Your task to perform on an android device: Clear all items from cart on newegg.com. Search for "asus zenbook" on newegg.com, select the first entry, add it to the cart, then select checkout. Image 0: 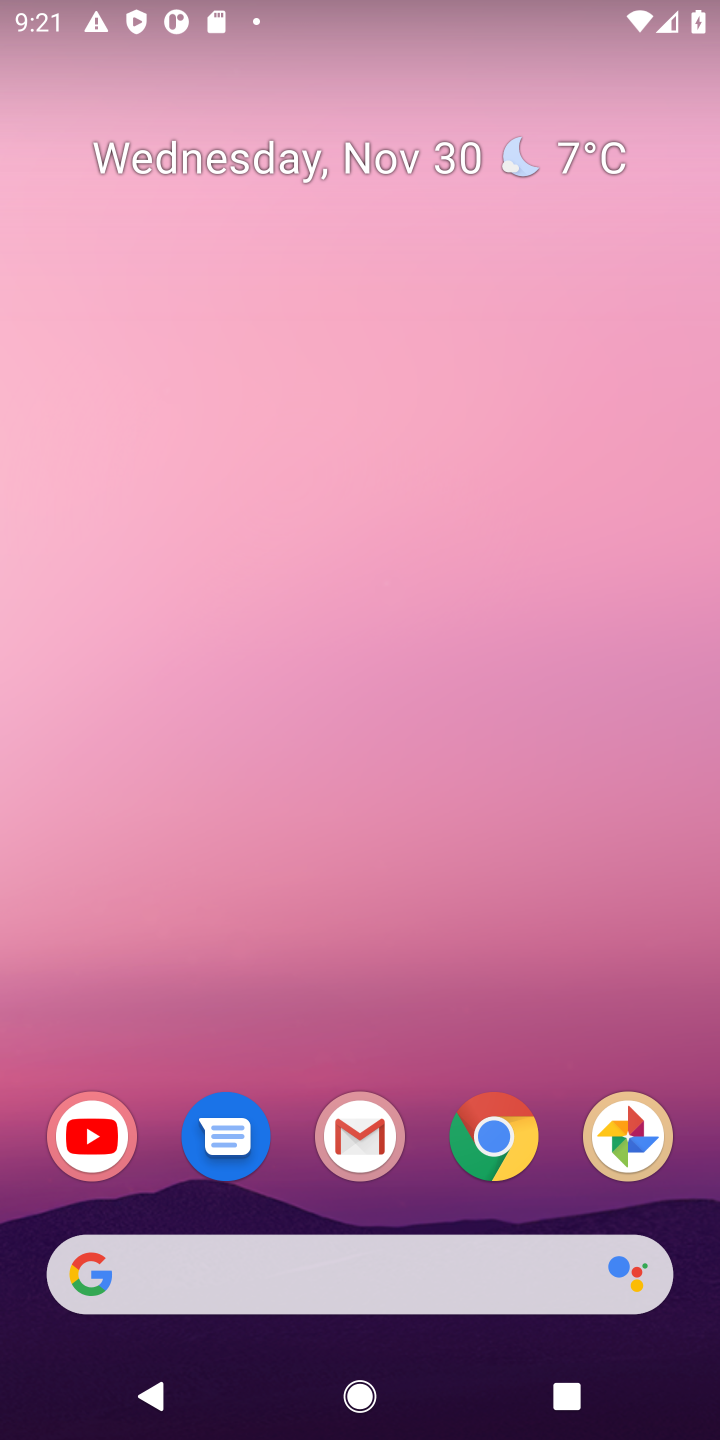
Step 0: click (507, 1141)
Your task to perform on an android device: Clear all items from cart on newegg.com. Search for "asus zenbook" on newegg.com, select the first entry, add it to the cart, then select checkout. Image 1: 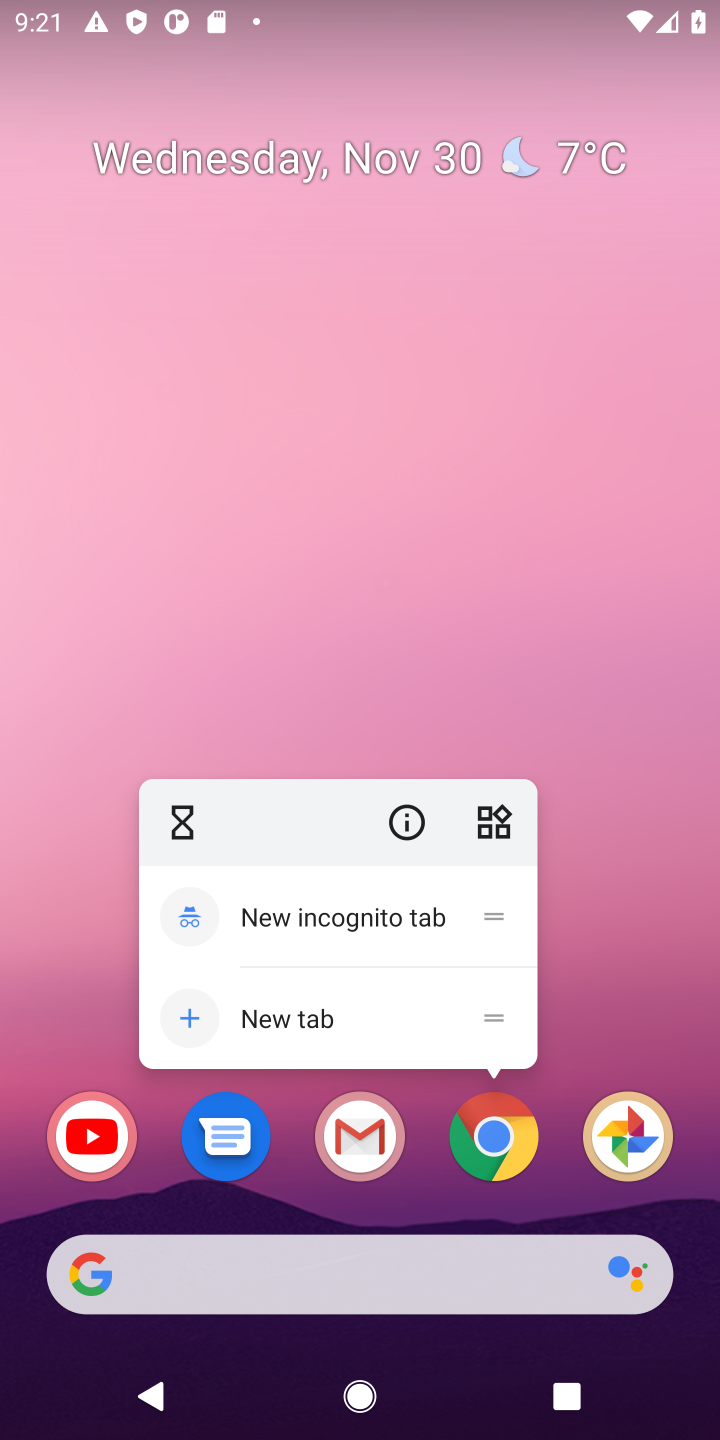
Step 1: click (693, 1008)
Your task to perform on an android device: Clear all items from cart on newegg.com. Search for "asus zenbook" on newegg.com, select the first entry, add it to the cart, then select checkout. Image 2: 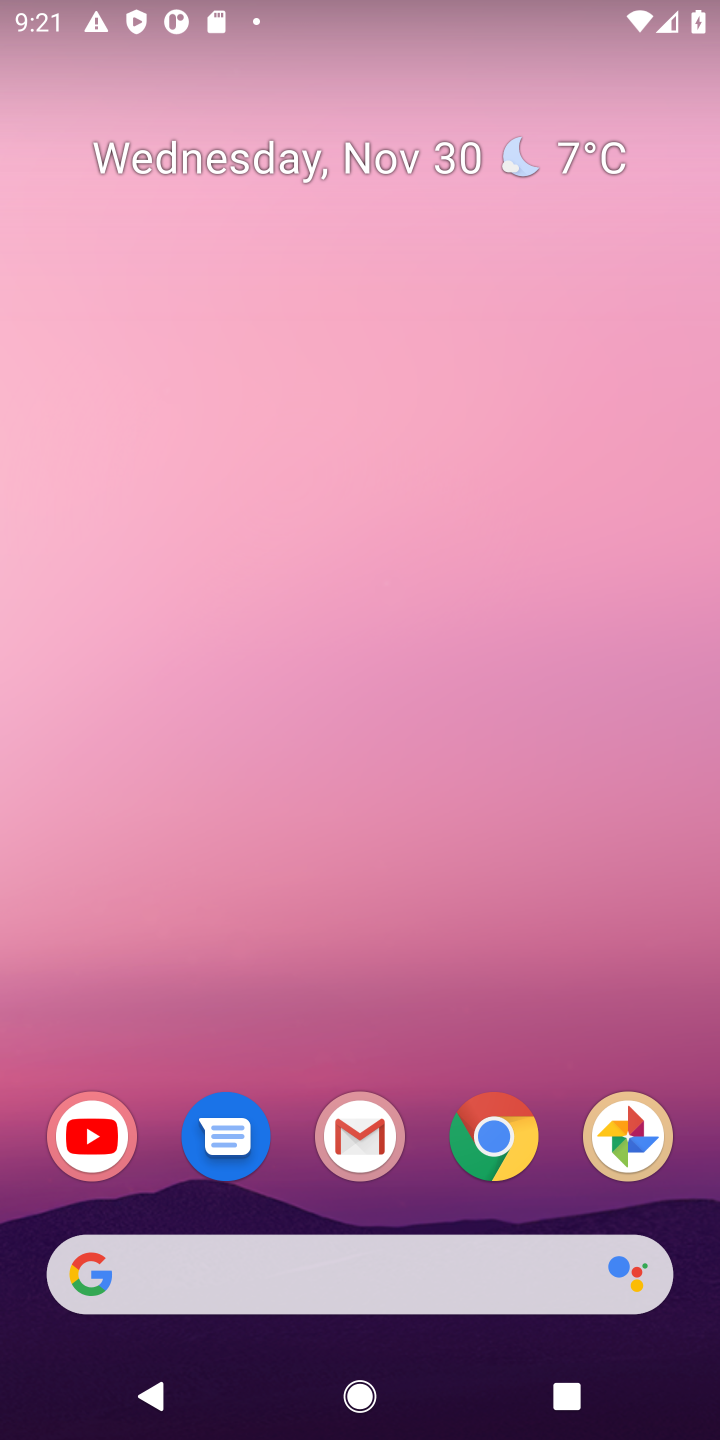
Step 2: click (507, 1126)
Your task to perform on an android device: Clear all items from cart on newegg.com. Search for "asus zenbook" on newegg.com, select the first entry, add it to the cart, then select checkout. Image 3: 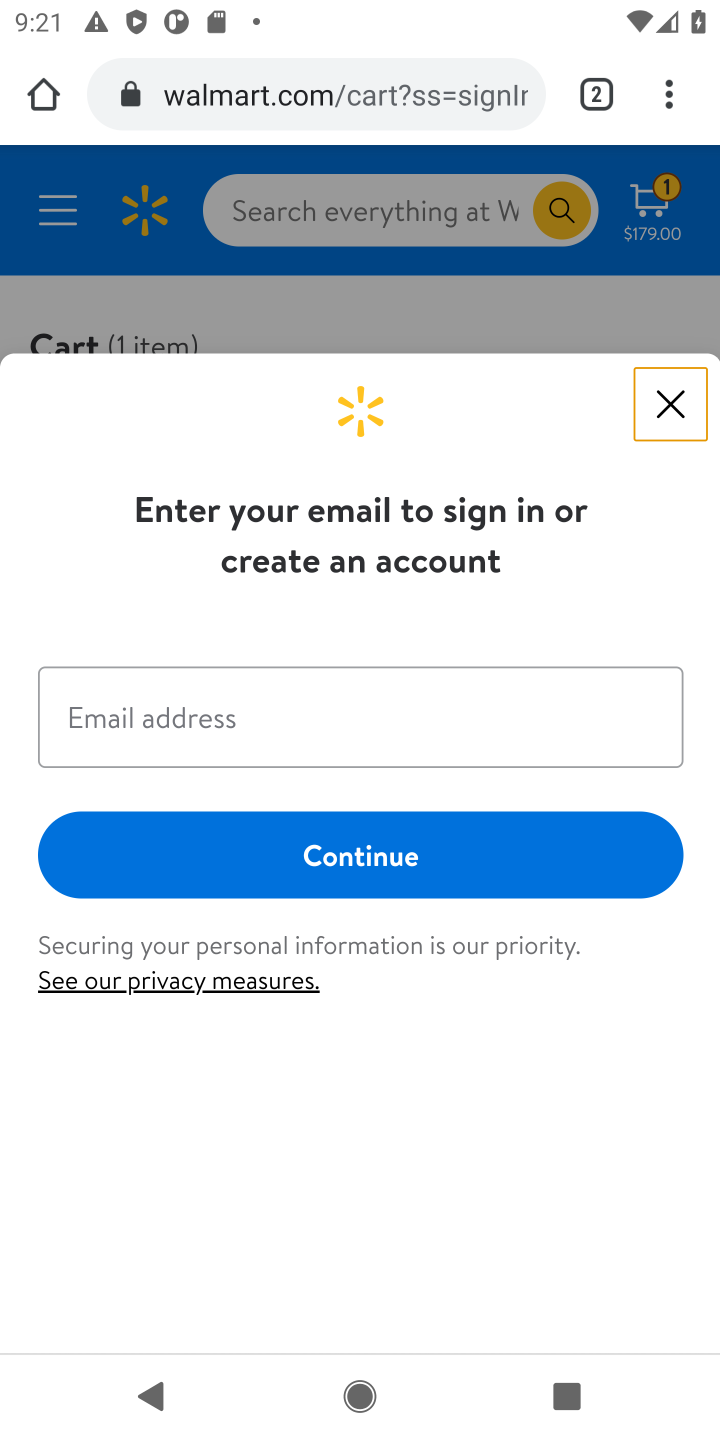
Step 3: click (323, 104)
Your task to perform on an android device: Clear all items from cart on newegg.com. Search for "asus zenbook" on newegg.com, select the first entry, add it to the cart, then select checkout. Image 4: 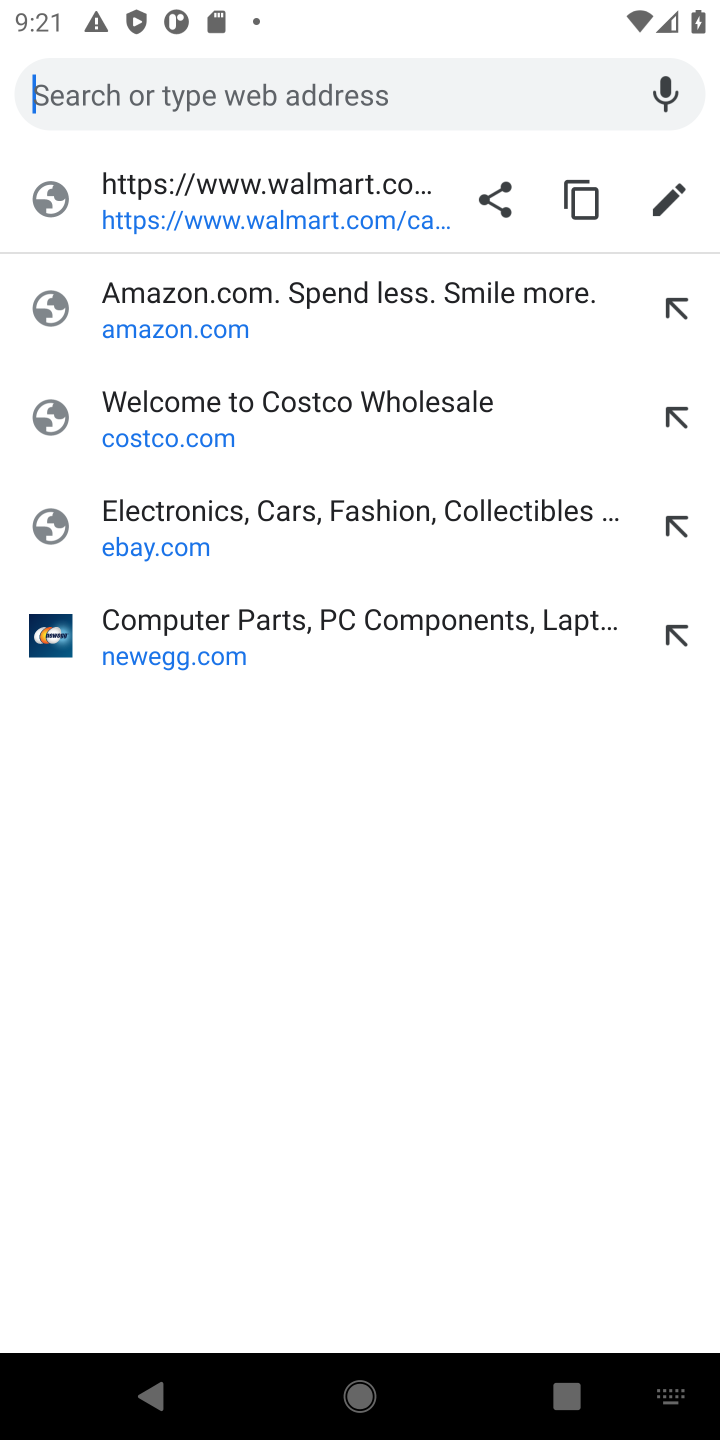
Step 4: click (141, 646)
Your task to perform on an android device: Clear all items from cart on newegg.com. Search for "asus zenbook" on newegg.com, select the first entry, add it to the cart, then select checkout. Image 5: 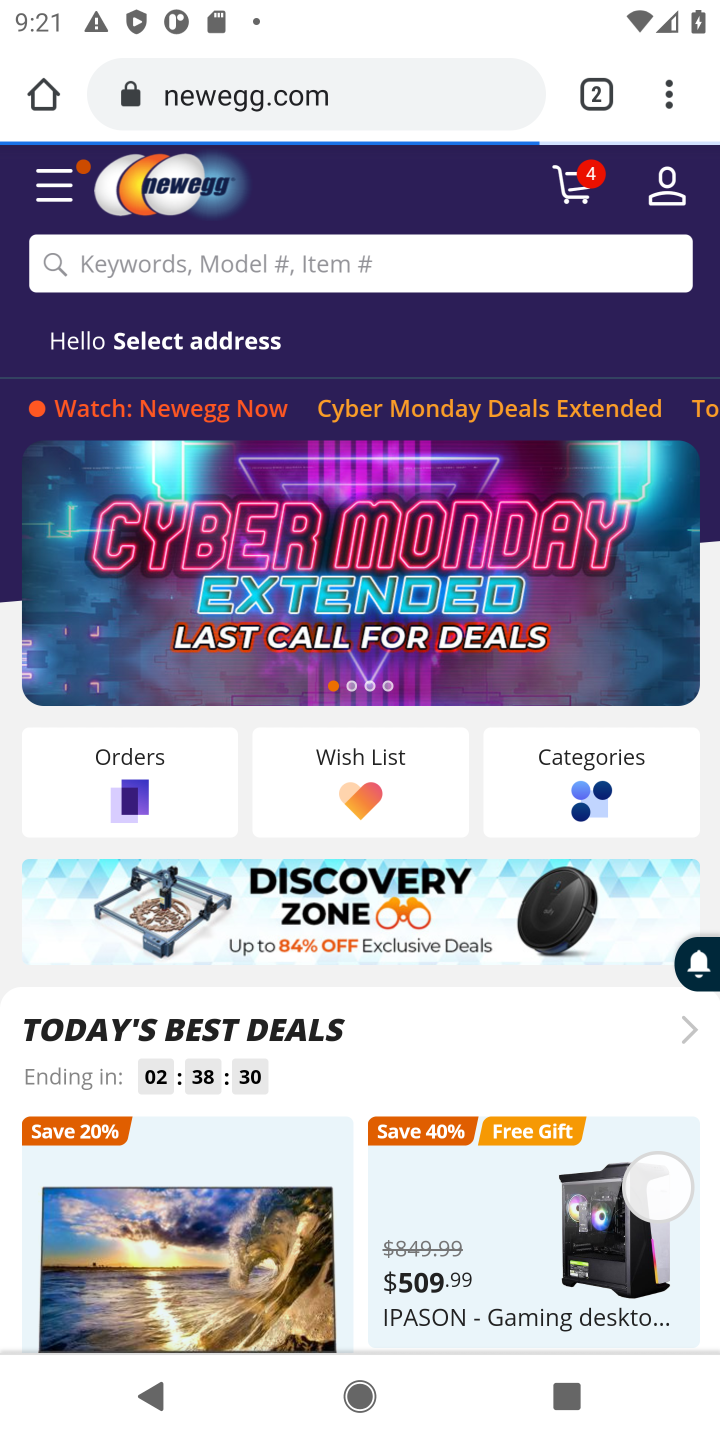
Step 5: click (580, 198)
Your task to perform on an android device: Clear all items from cart on newegg.com. Search for "asus zenbook" on newegg.com, select the first entry, add it to the cart, then select checkout. Image 6: 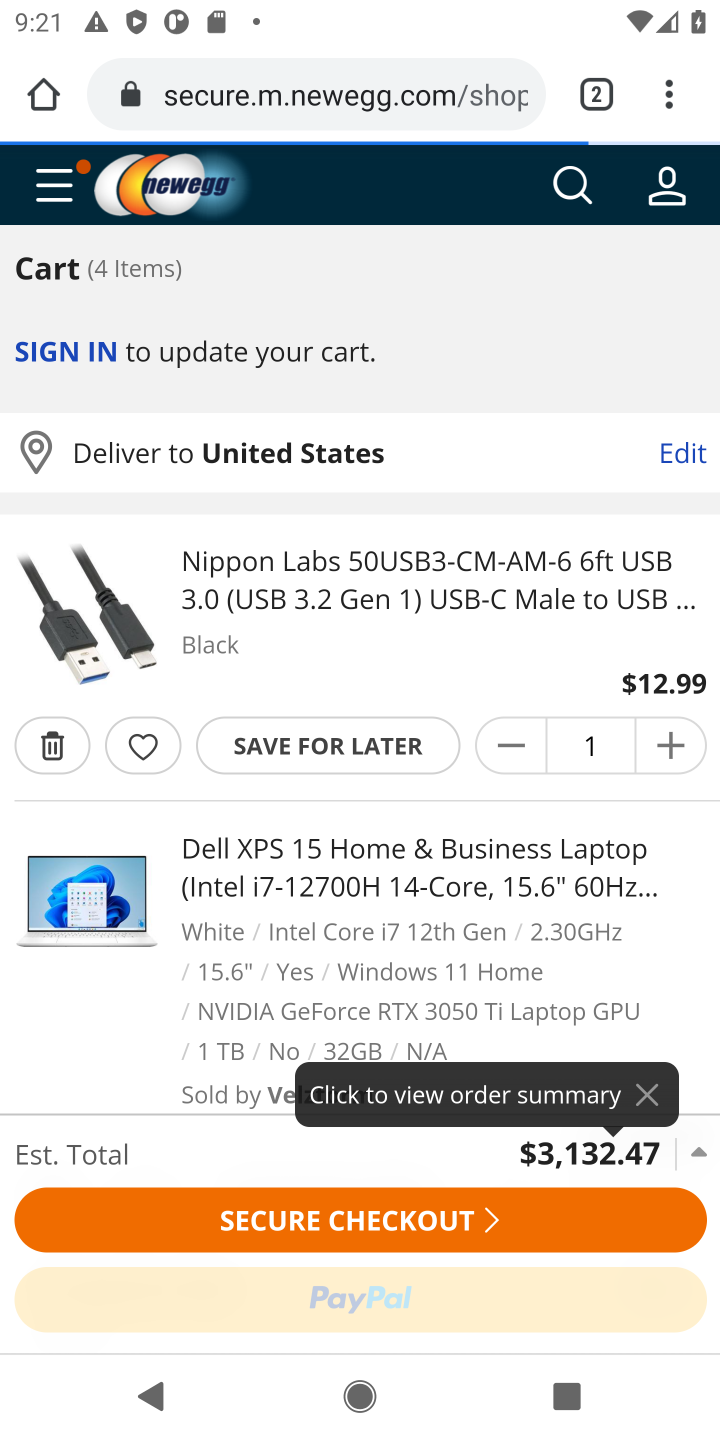
Step 6: click (30, 745)
Your task to perform on an android device: Clear all items from cart on newegg.com. Search for "asus zenbook" on newegg.com, select the first entry, add it to the cart, then select checkout. Image 7: 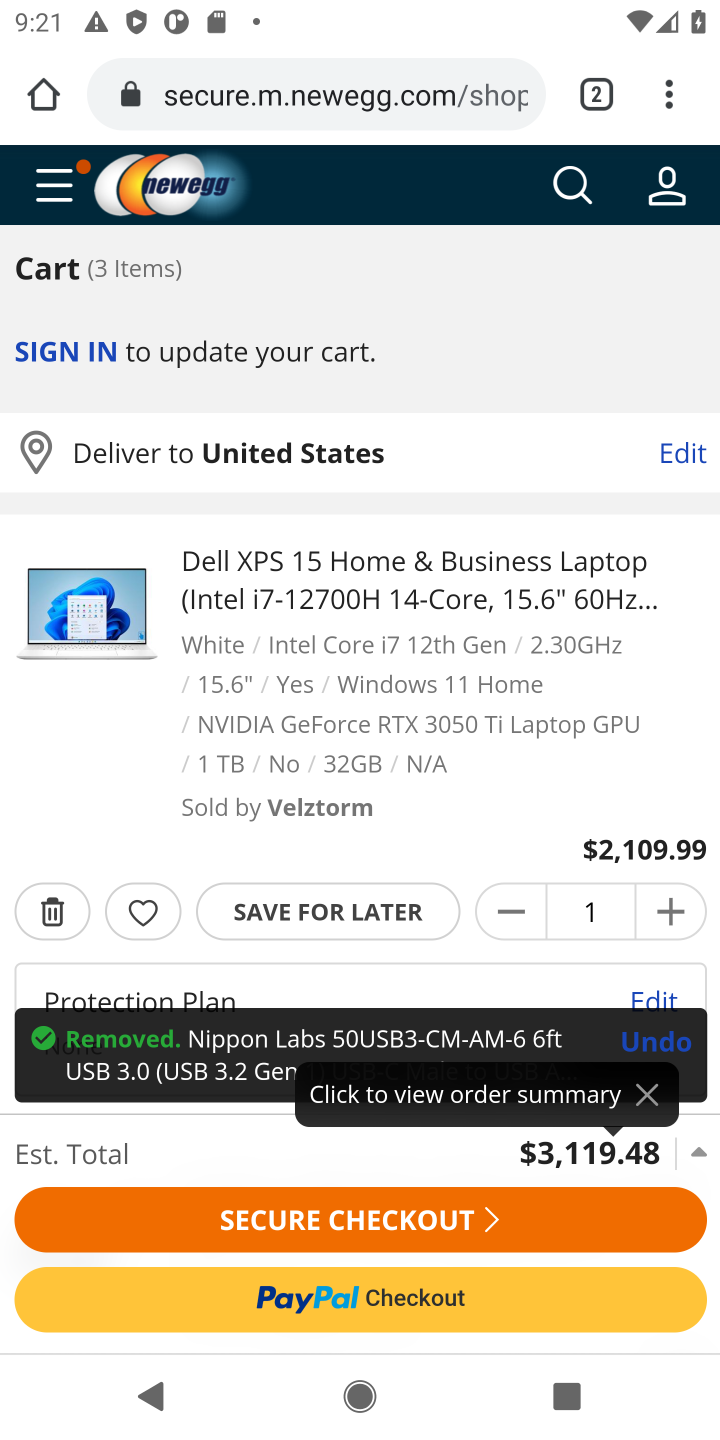
Step 7: click (56, 902)
Your task to perform on an android device: Clear all items from cart on newegg.com. Search for "asus zenbook" on newegg.com, select the first entry, add it to the cart, then select checkout. Image 8: 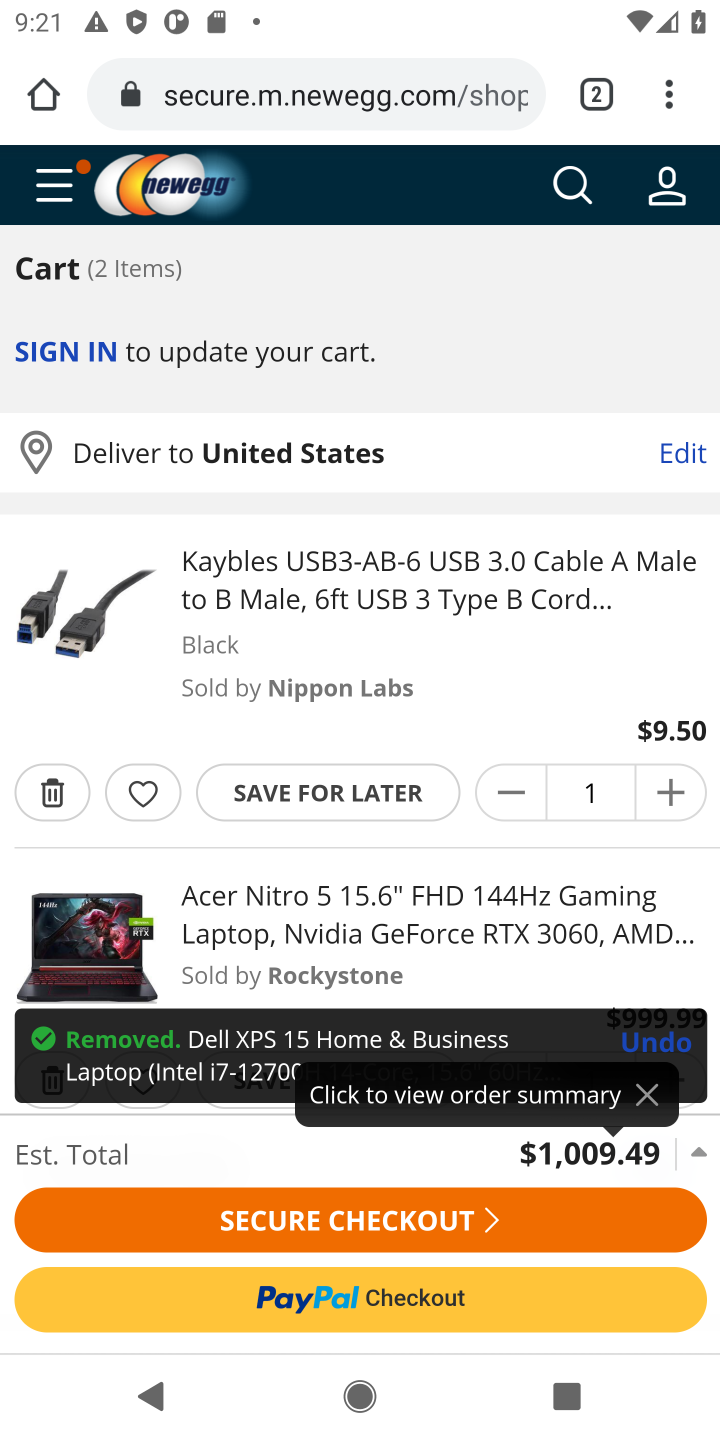
Step 8: click (54, 794)
Your task to perform on an android device: Clear all items from cart on newegg.com. Search for "asus zenbook" on newegg.com, select the first entry, add it to the cart, then select checkout. Image 9: 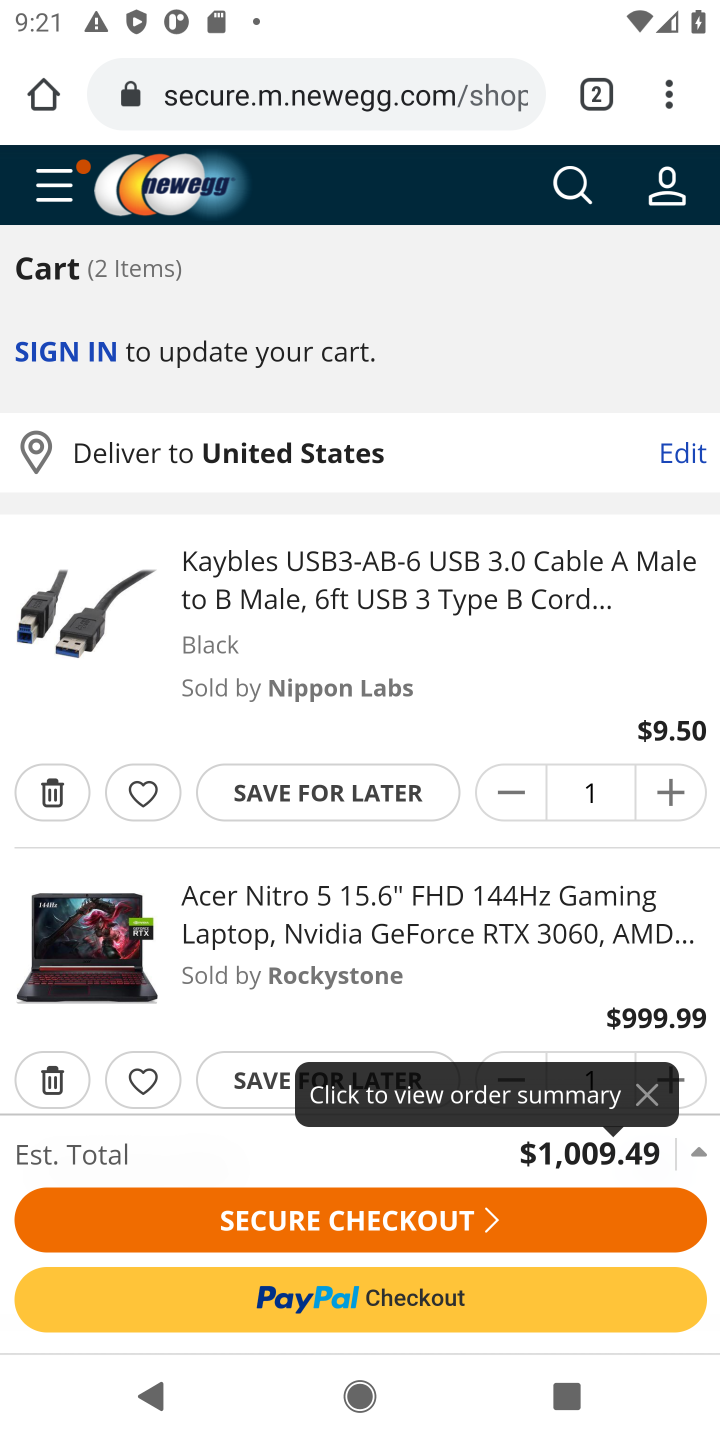
Step 9: click (50, 791)
Your task to perform on an android device: Clear all items from cart on newegg.com. Search for "asus zenbook" on newegg.com, select the first entry, add it to the cart, then select checkout. Image 10: 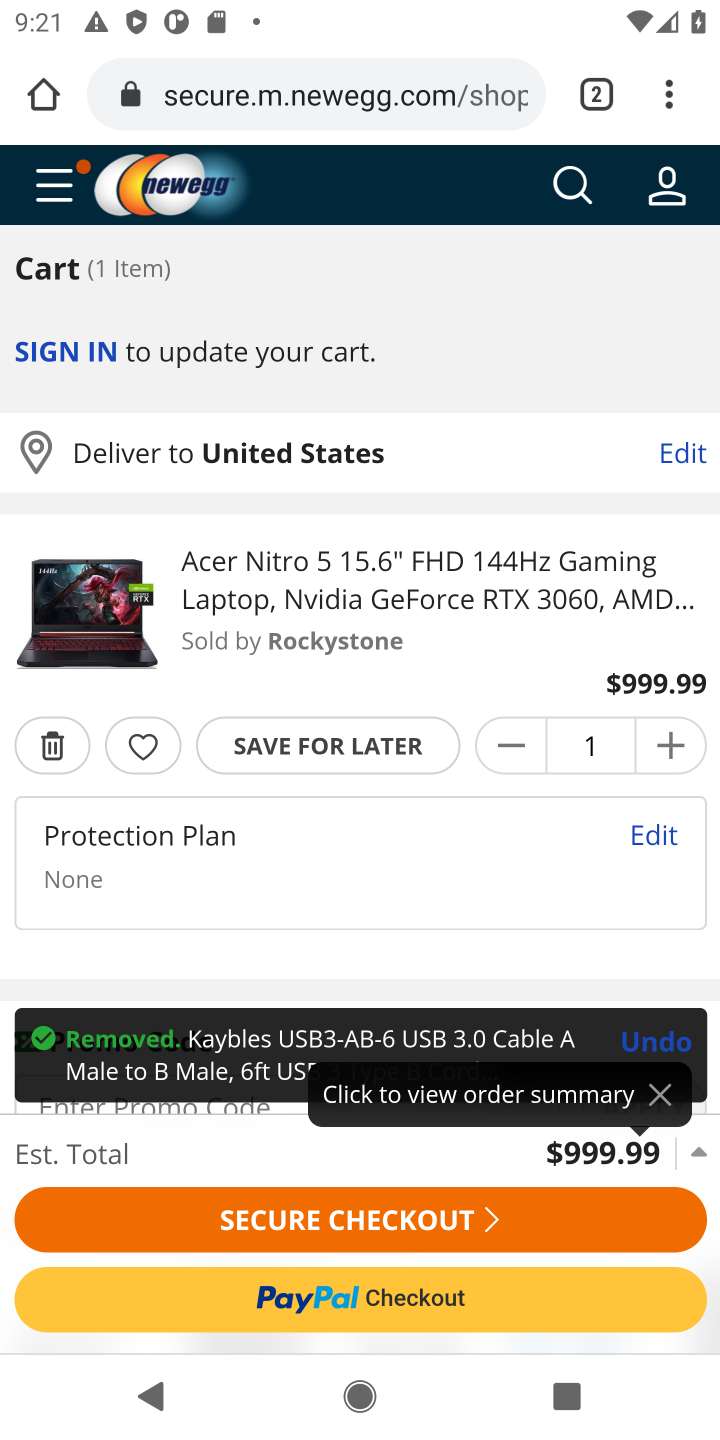
Step 10: click (58, 741)
Your task to perform on an android device: Clear all items from cart on newegg.com. Search for "asus zenbook" on newegg.com, select the first entry, add it to the cart, then select checkout. Image 11: 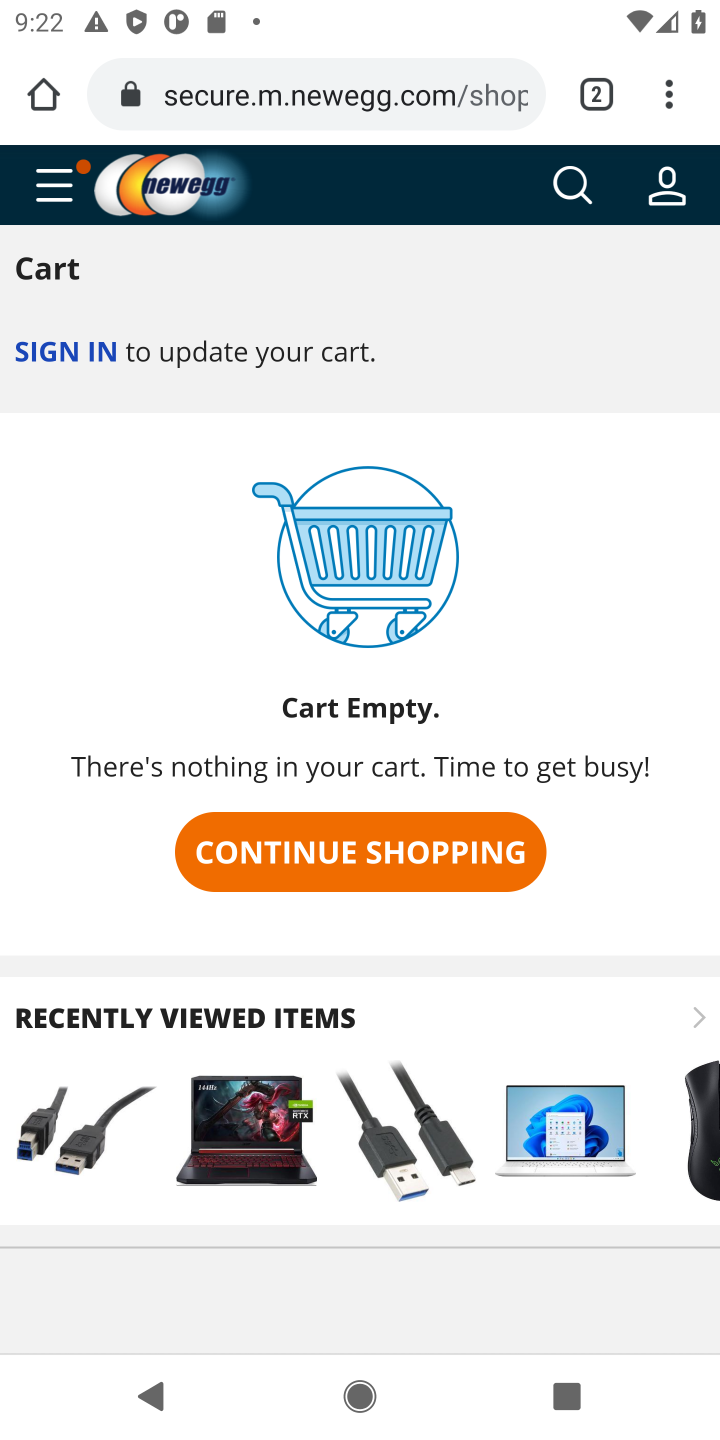
Step 11: click (575, 201)
Your task to perform on an android device: Clear all items from cart on newegg.com. Search for "asus zenbook" on newegg.com, select the first entry, add it to the cart, then select checkout. Image 12: 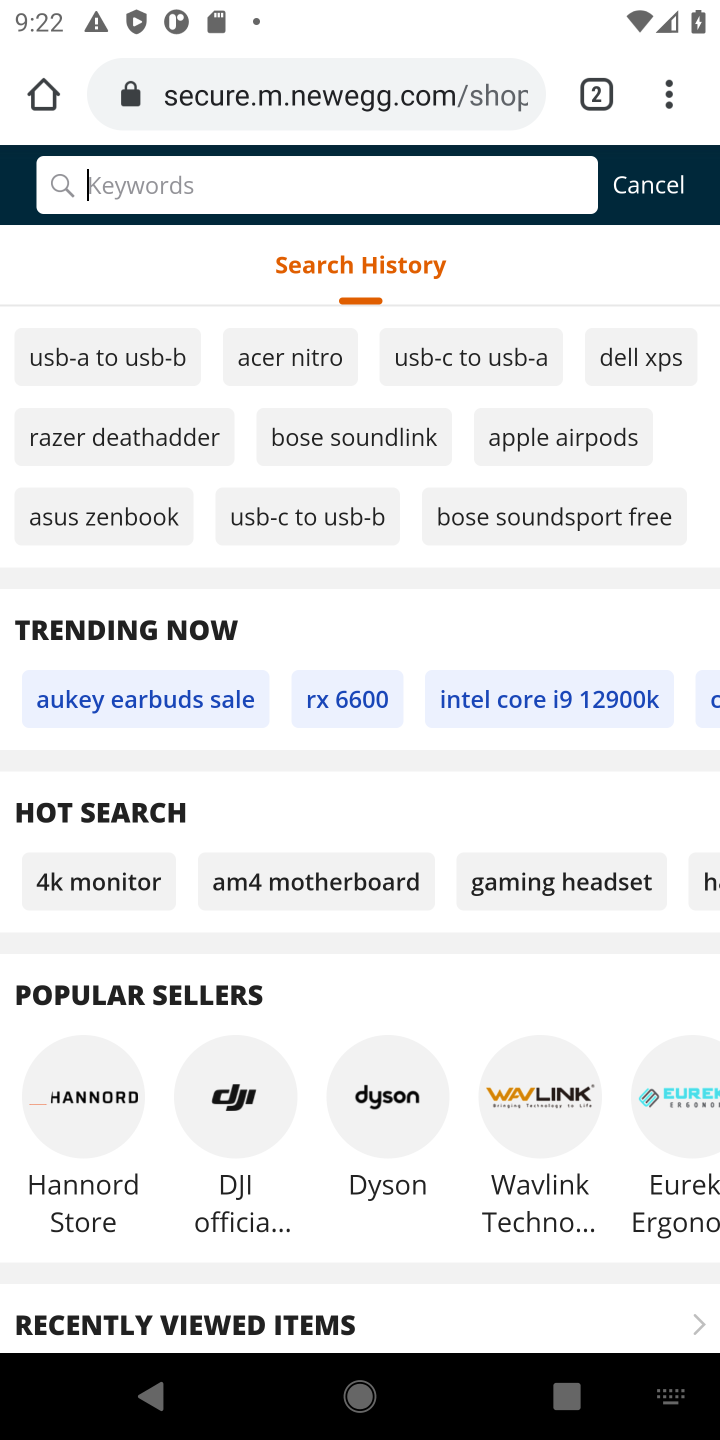
Step 12: type "asus zenbook"
Your task to perform on an android device: Clear all items from cart on newegg.com. Search for "asus zenbook" on newegg.com, select the first entry, add it to the cart, then select checkout. Image 13: 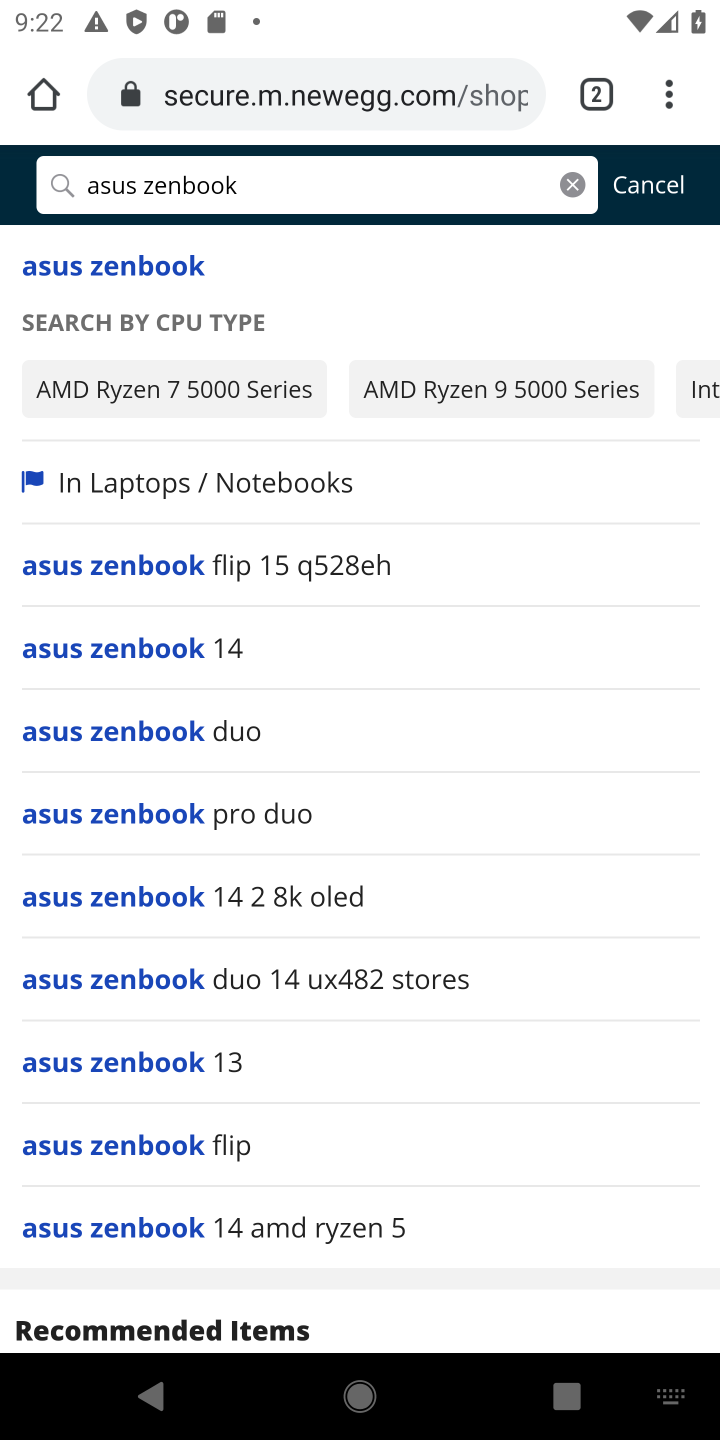
Step 13: click (147, 268)
Your task to perform on an android device: Clear all items from cart on newegg.com. Search for "asus zenbook" on newegg.com, select the first entry, add it to the cart, then select checkout. Image 14: 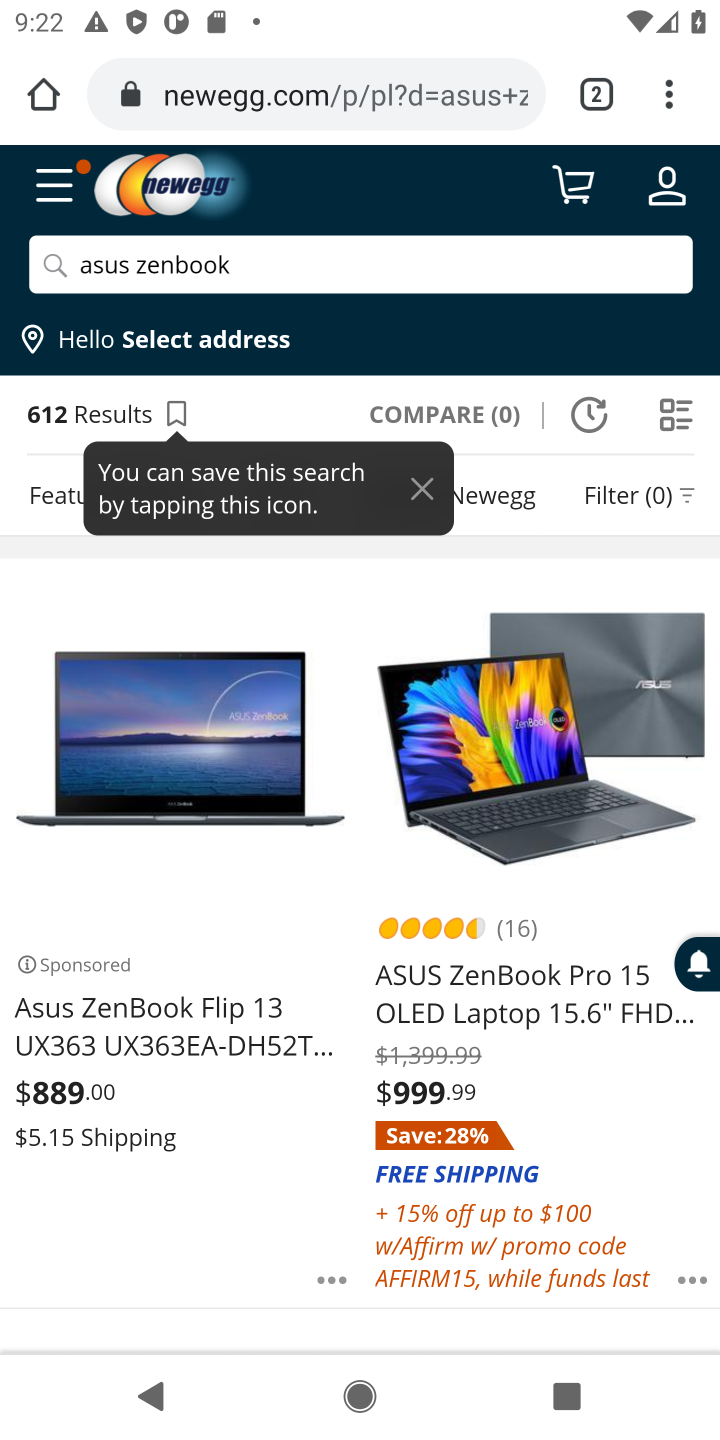
Step 14: click (76, 1023)
Your task to perform on an android device: Clear all items from cart on newegg.com. Search for "asus zenbook" on newegg.com, select the first entry, add it to the cart, then select checkout. Image 15: 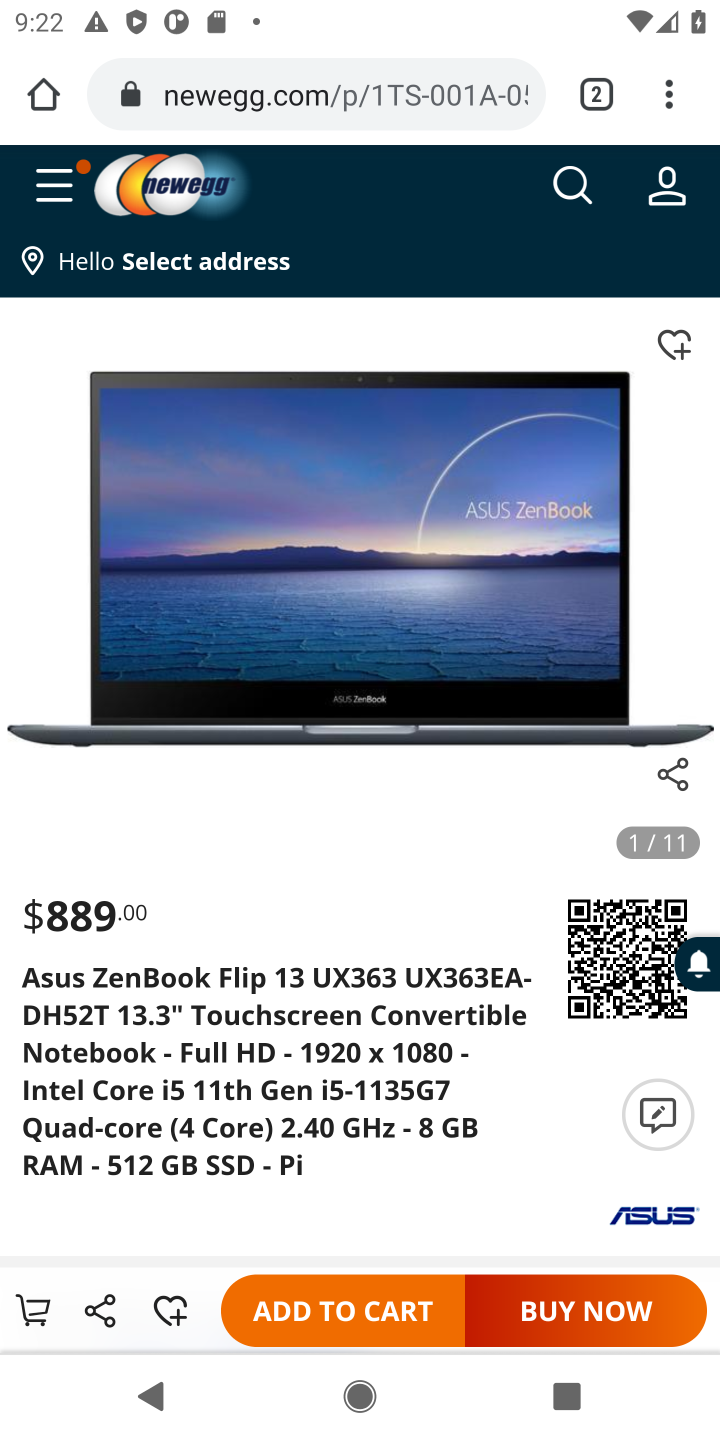
Step 15: click (324, 1313)
Your task to perform on an android device: Clear all items from cart on newegg.com. Search for "asus zenbook" on newegg.com, select the first entry, add it to the cart, then select checkout. Image 16: 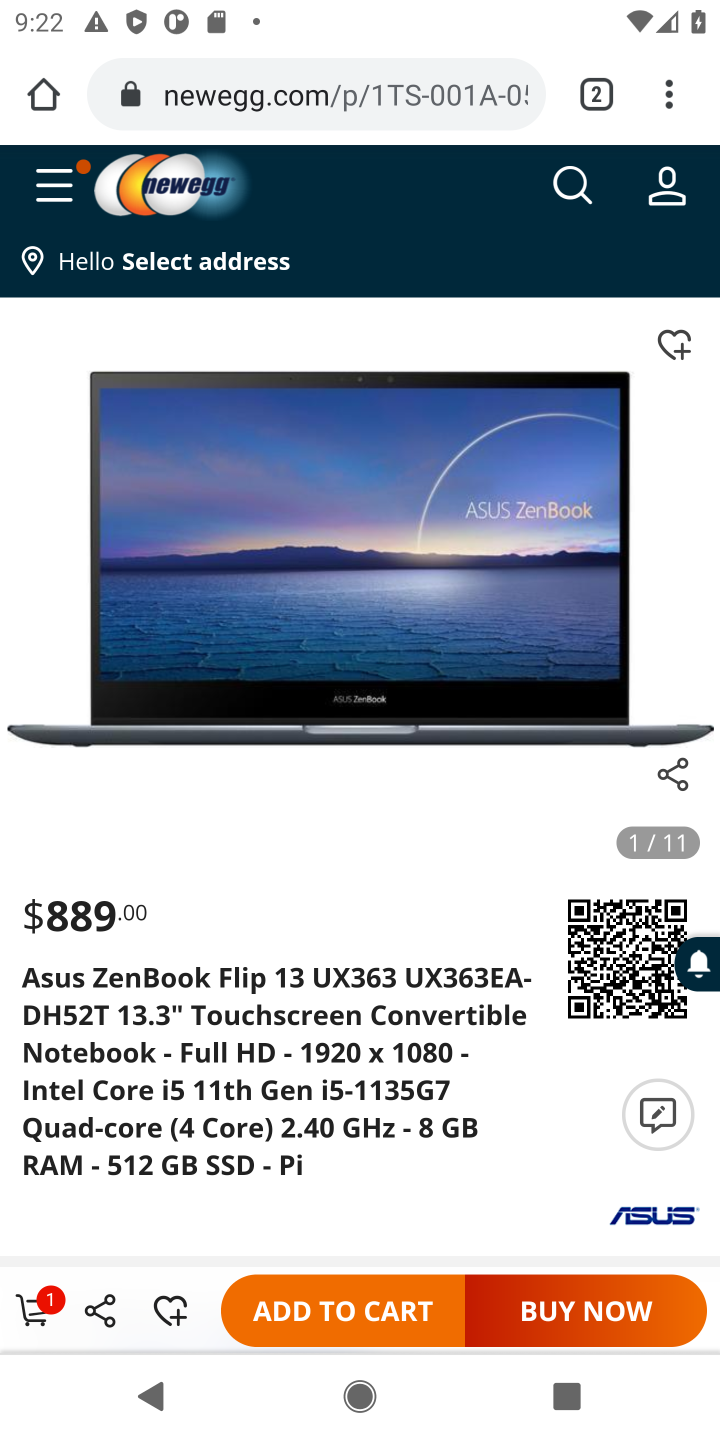
Step 16: click (38, 1309)
Your task to perform on an android device: Clear all items from cart on newegg.com. Search for "asus zenbook" on newegg.com, select the first entry, add it to the cart, then select checkout. Image 17: 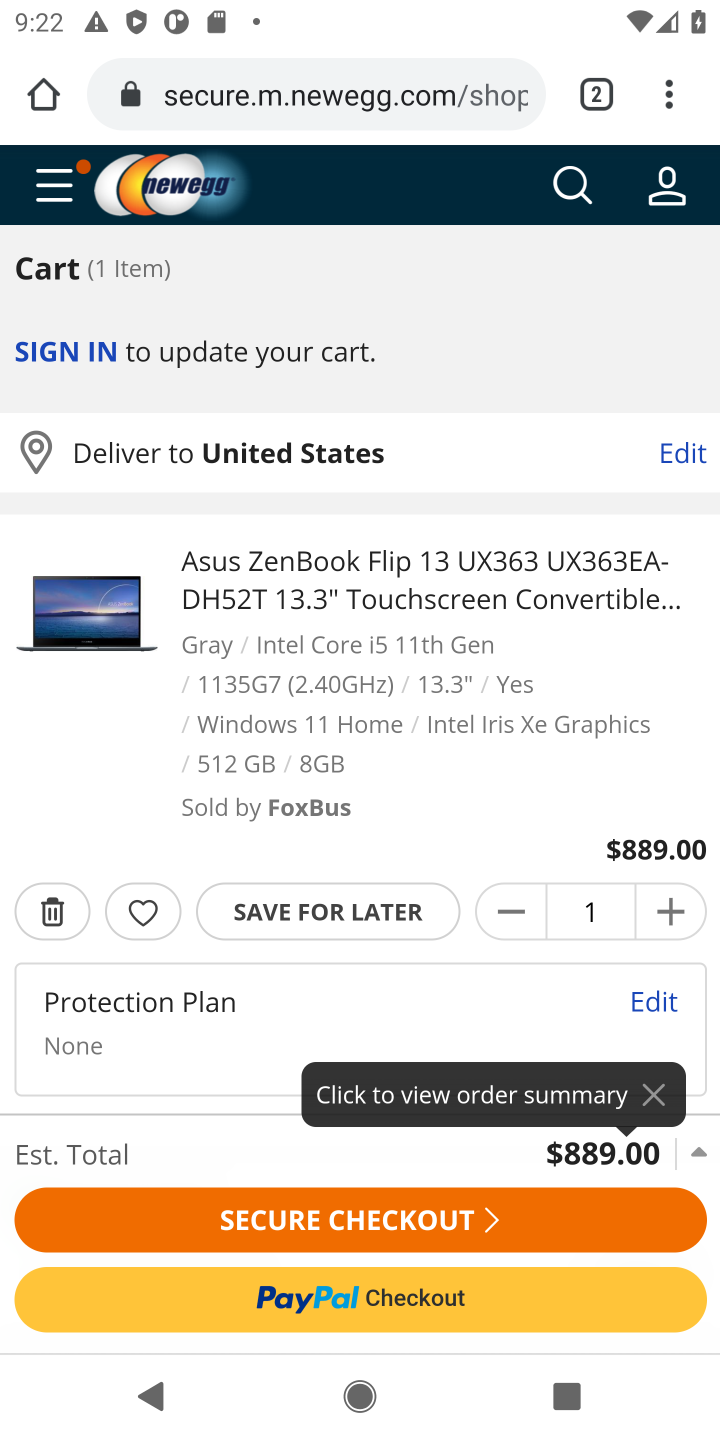
Step 17: click (318, 1224)
Your task to perform on an android device: Clear all items from cart on newegg.com. Search for "asus zenbook" on newegg.com, select the first entry, add it to the cart, then select checkout. Image 18: 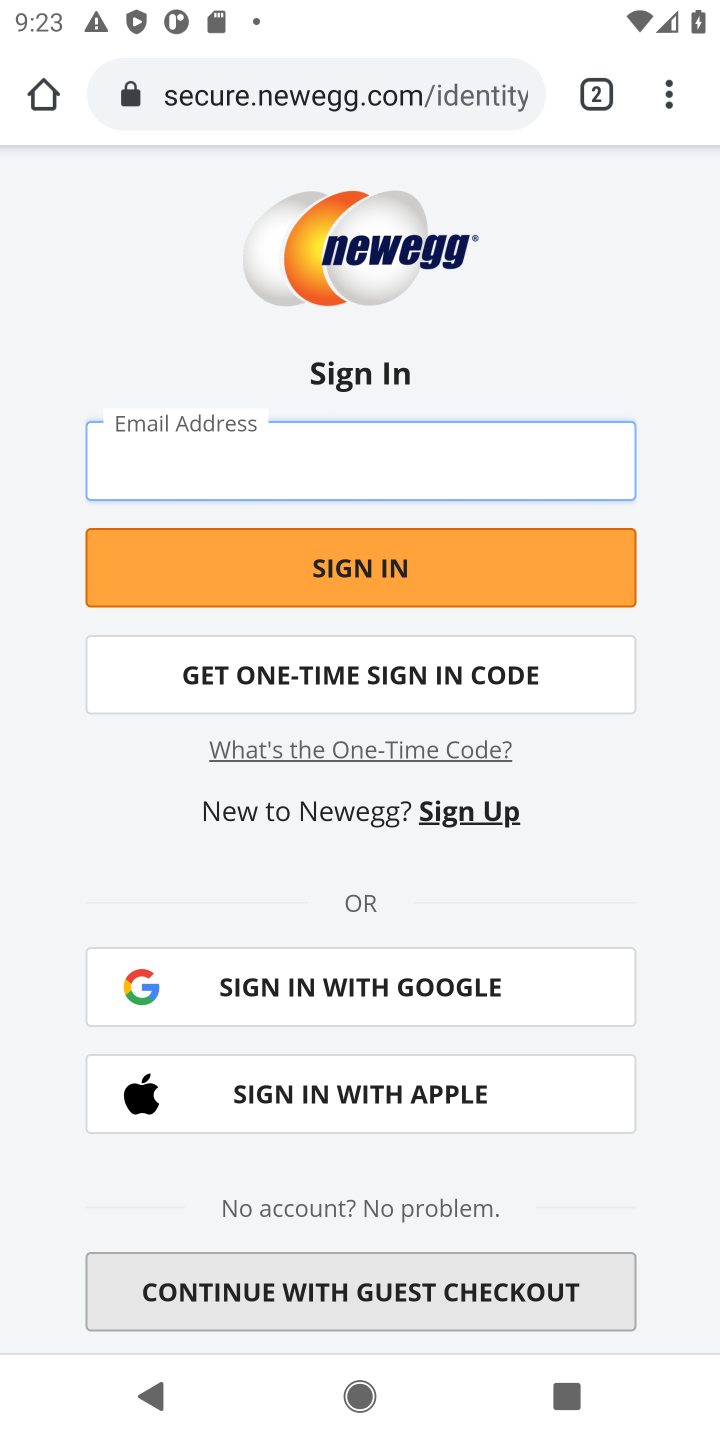
Step 18: task complete